Your task to perform on an android device: Open eBay Image 0: 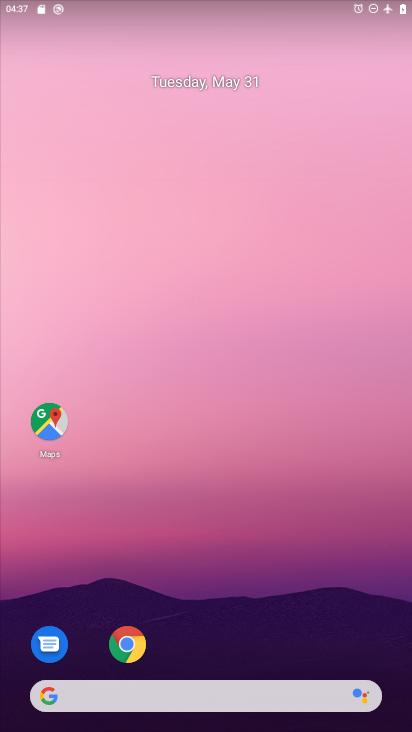
Step 0: drag from (275, 614) to (236, 188)
Your task to perform on an android device: Open eBay Image 1: 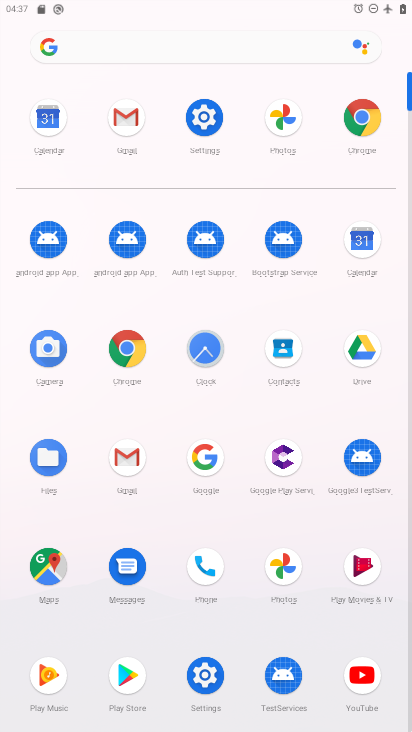
Step 1: click (130, 352)
Your task to perform on an android device: Open eBay Image 2: 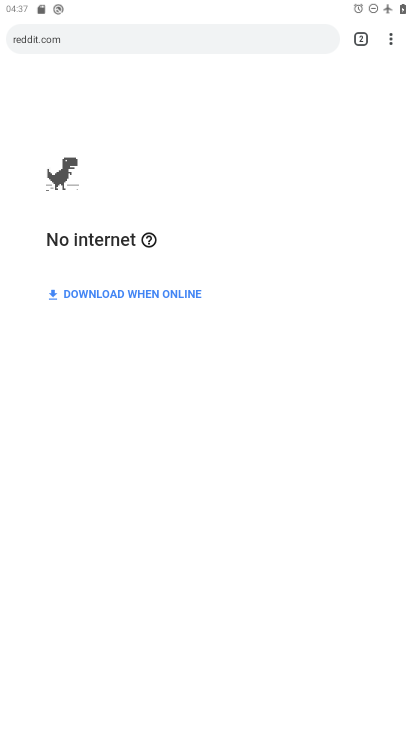
Step 2: click (174, 41)
Your task to perform on an android device: Open eBay Image 3: 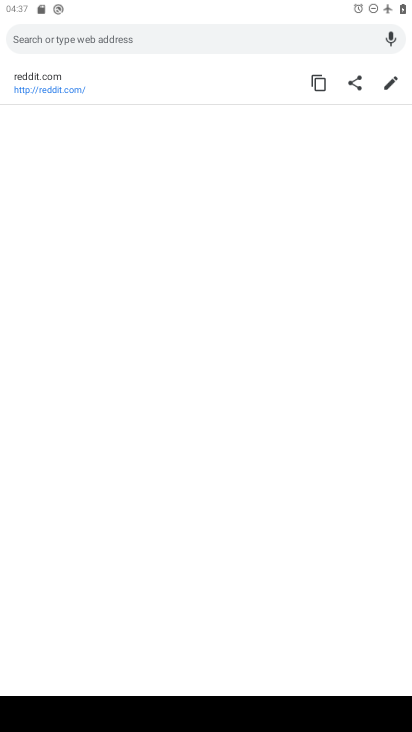
Step 3: type "ebay"
Your task to perform on an android device: Open eBay Image 4: 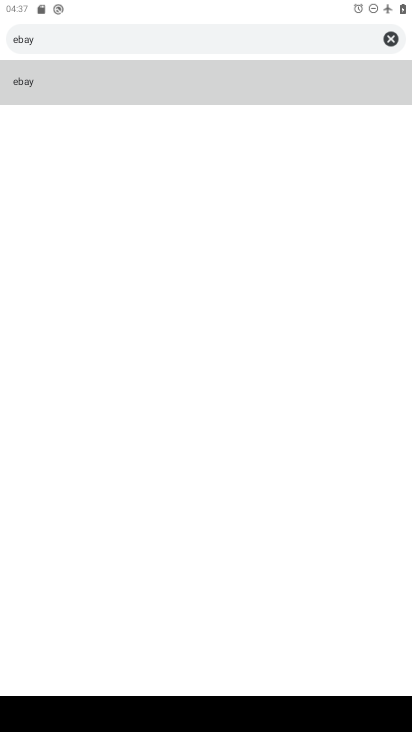
Step 4: click (93, 94)
Your task to perform on an android device: Open eBay Image 5: 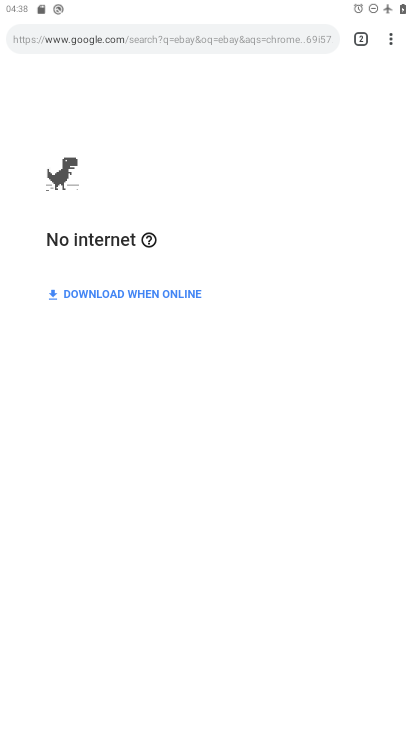
Step 5: task complete